Your task to perform on an android device: Go to ESPN.com Image 0: 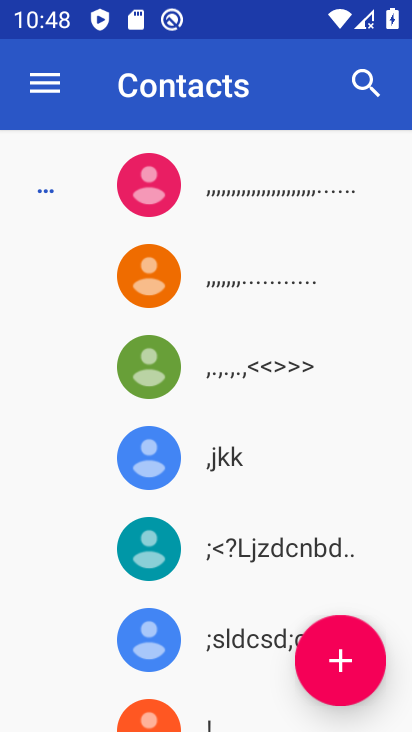
Step 0: press home button
Your task to perform on an android device: Go to ESPN.com Image 1: 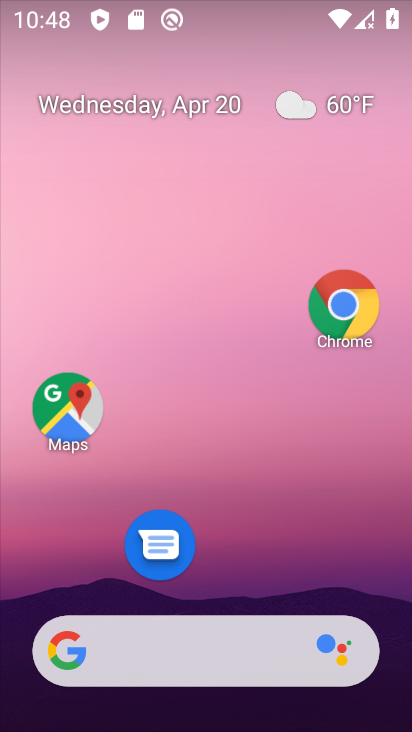
Step 1: click (363, 324)
Your task to perform on an android device: Go to ESPN.com Image 2: 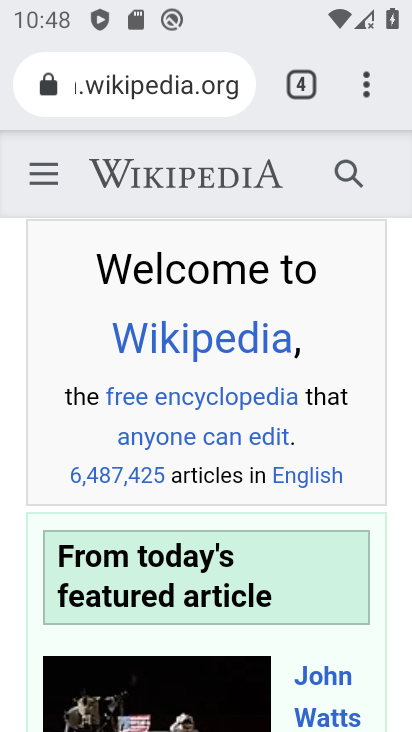
Step 2: click (227, 96)
Your task to perform on an android device: Go to ESPN.com Image 3: 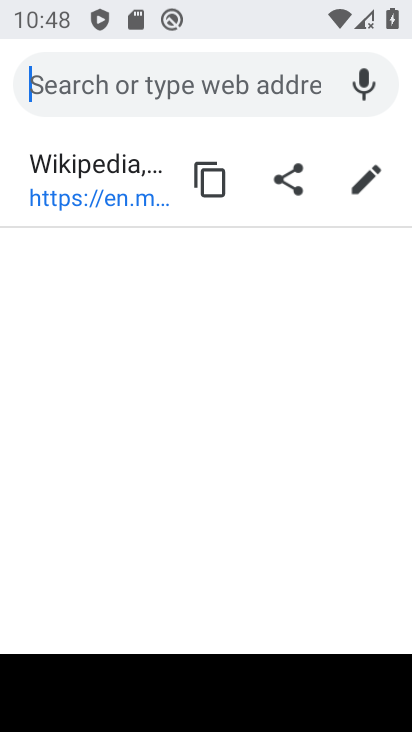
Step 3: type "espn.com"
Your task to perform on an android device: Go to ESPN.com Image 4: 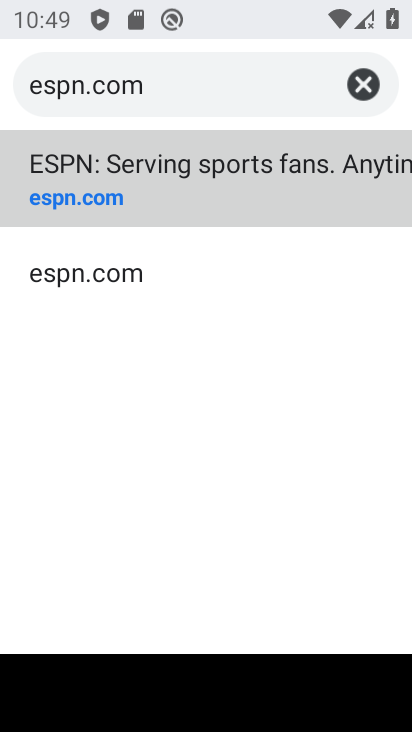
Step 4: click (293, 183)
Your task to perform on an android device: Go to ESPN.com Image 5: 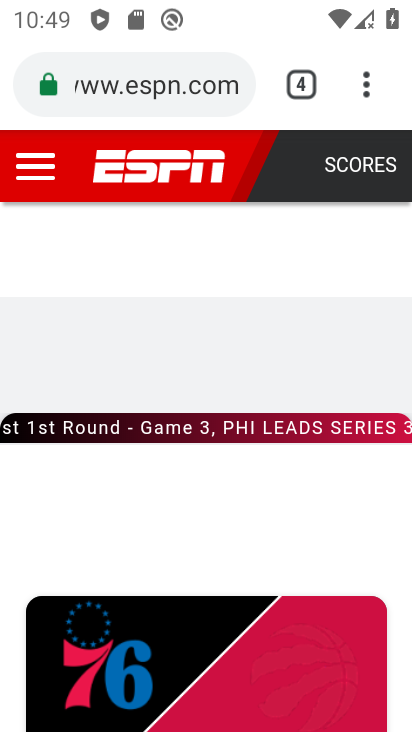
Step 5: task complete